Your task to perform on an android device: Go to Reddit.com Image 0: 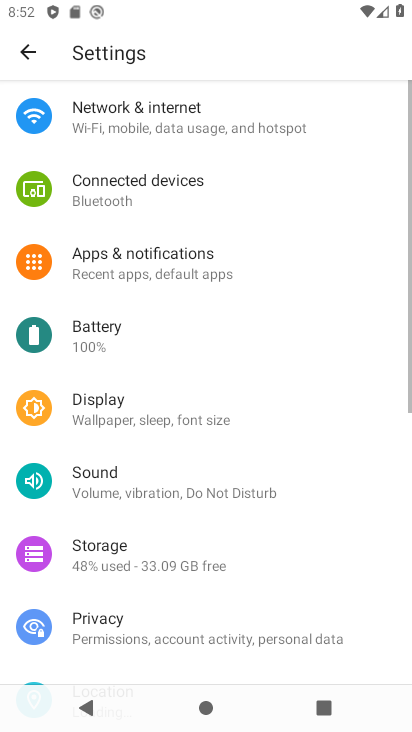
Step 0: press home button
Your task to perform on an android device: Go to Reddit.com Image 1: 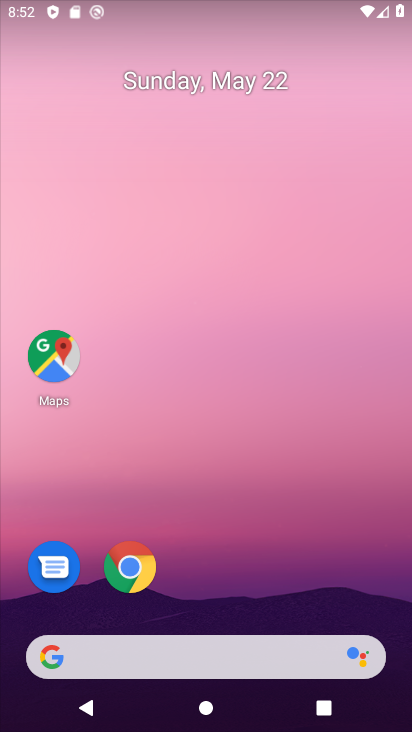
Step 1: click (134, 563)
Your task to perform on an android device: Go to Reddit.com Image 2: 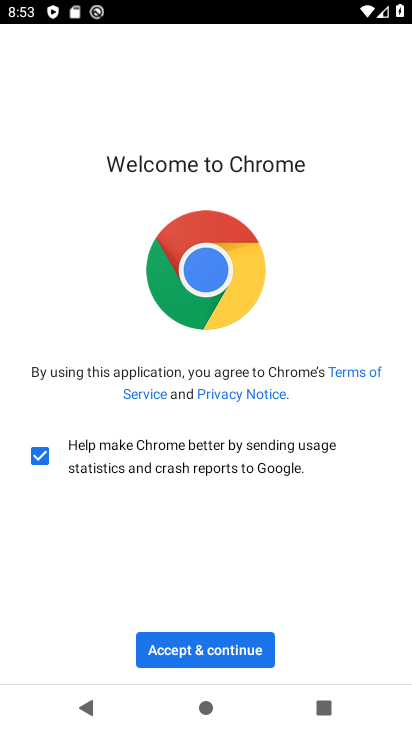
Step 2: click (197, 649)
Your task to perform on an android device: Go to Reddit.com Image 3: 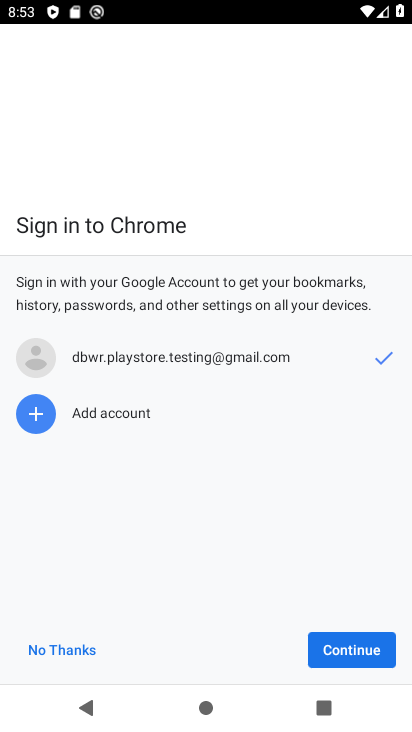
Step 3: click (357, 649)
Your task to perform on an android device: Go to Reddit.com Image 4: 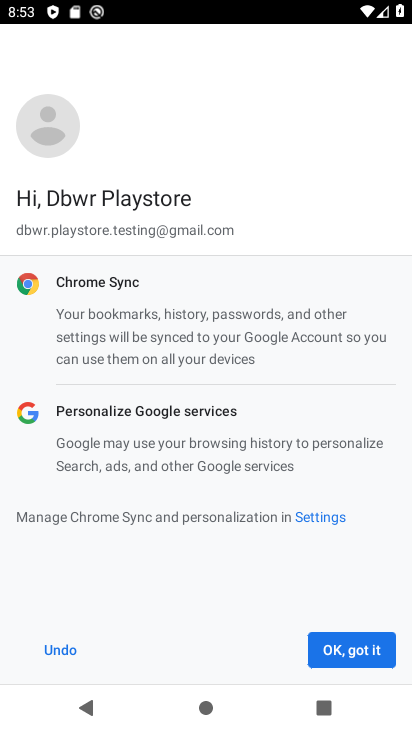
Step 4: click (353, 646)
Your task to perform on an android device: Go to Reddit.com Image 5: 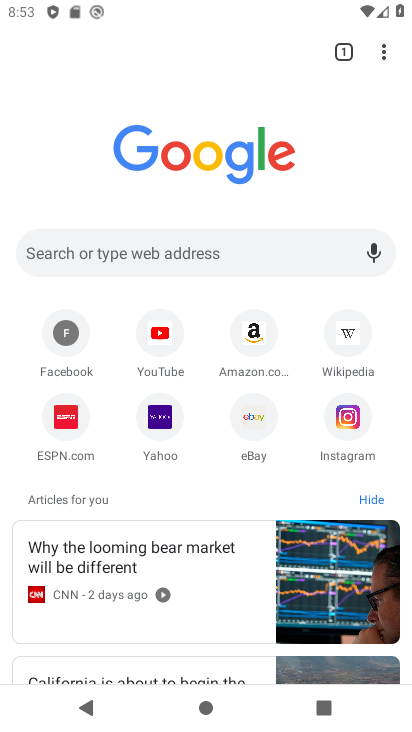
Step 5: click (85, 242)
Your task to perform on an android device: Go to Reddit.com Image 6: 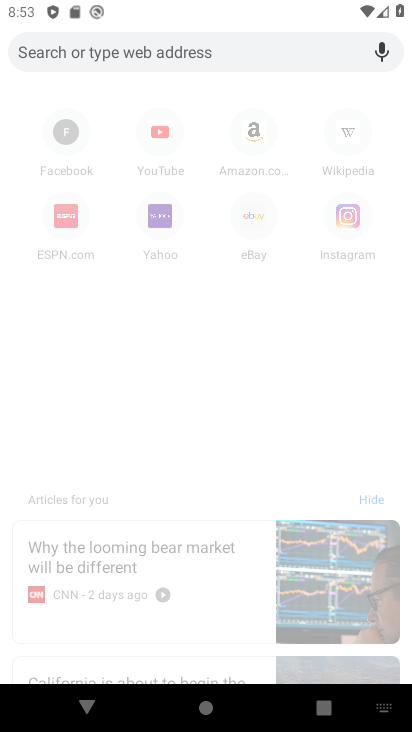
Step 6: type "reddit"
Your task to perform on an android device: Go to Reddit.com Image 7: 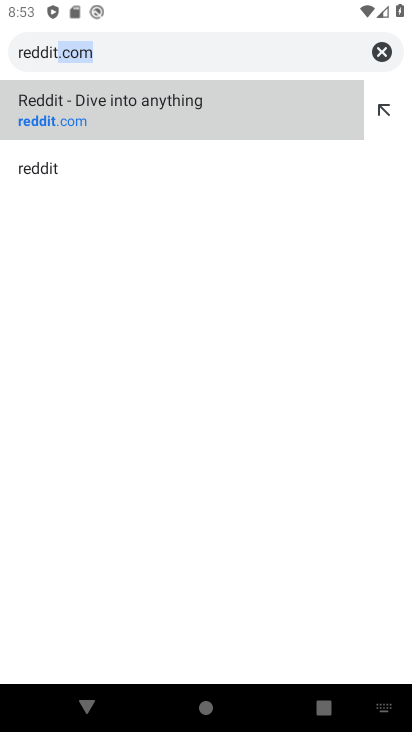
Step 7: click (129, 117)
Your task to perform on an android device: Go to Reddit.com Image 8: 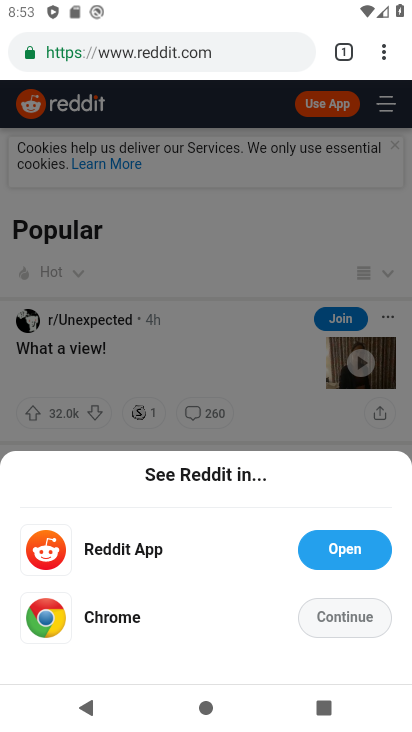
Step 8: click (342, 608)
Your task to perform on an android device: Go to Reddit.com Image 9: 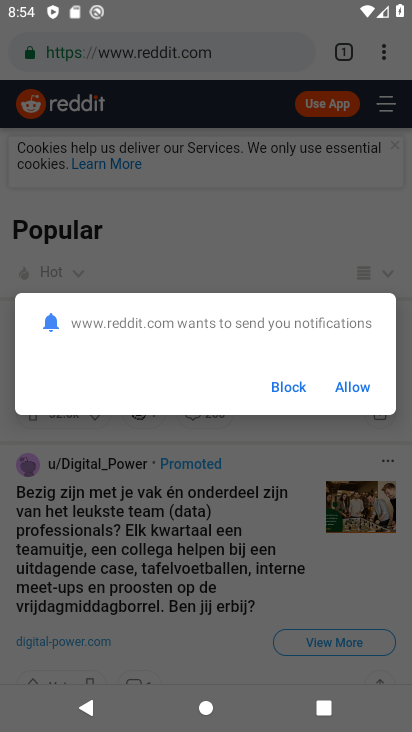
Step 9: click (286, 395)
Your task to perform on an android device: Go to Reddit.com Image 10: 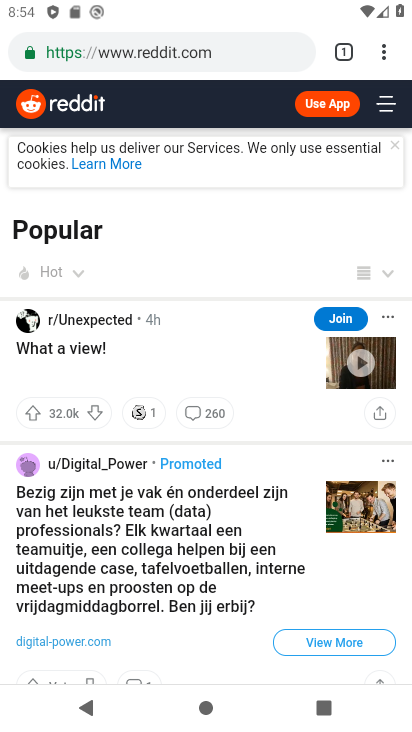
Step 10: task complete